Your task to perform on an android device: install app "Speedtest by Ookla" Image 0: 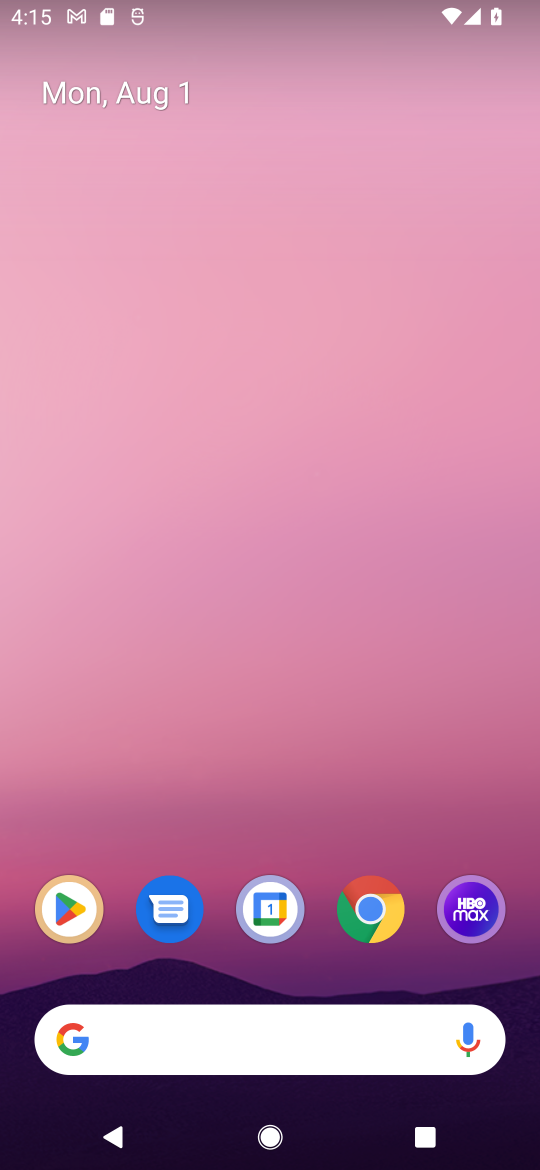
Step 0: click (64, 900)
Your task to perform on an android device: install app "Speedtest by Ookla" Image 1: 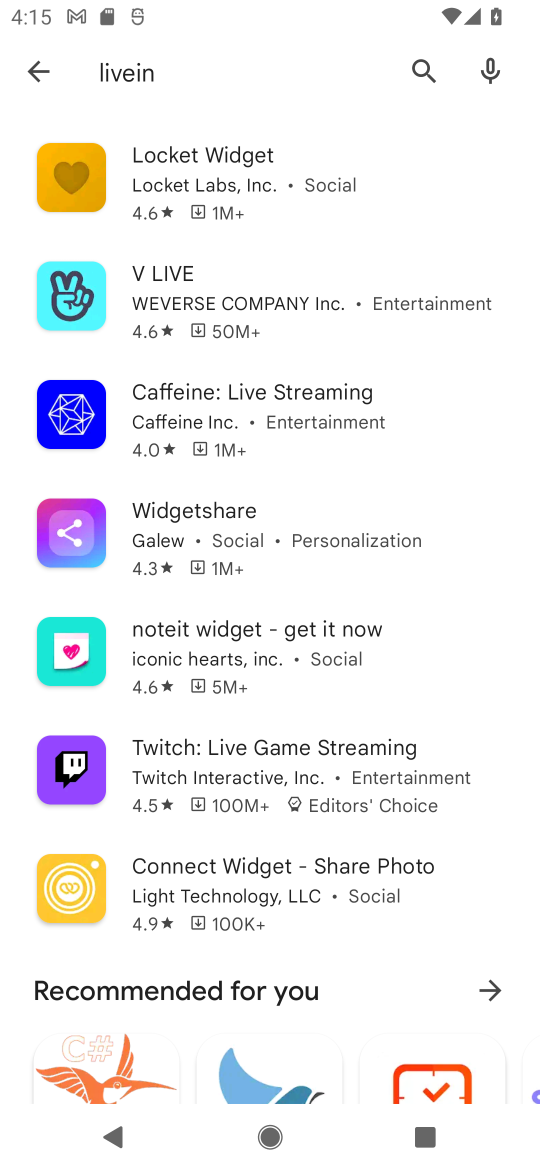
Step 1: click (192, 71)
Your task to perform on an android device: install app "Speedtest by Ookla" Image 2: 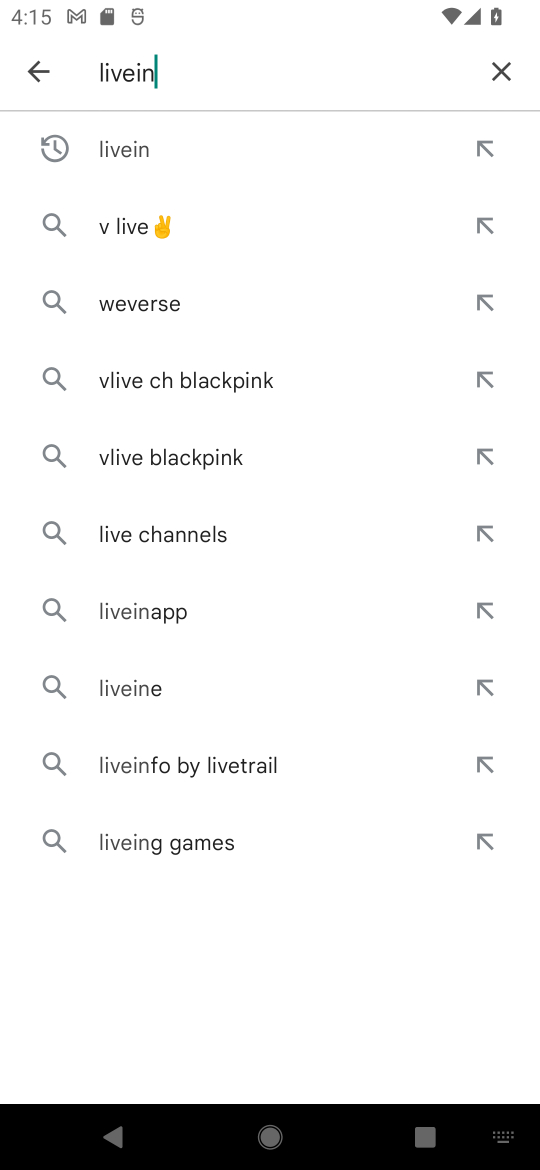
Step 2: click (504, 72)
Your task to perform on an android device: install app "Speedtest by Ookla" Image 3: 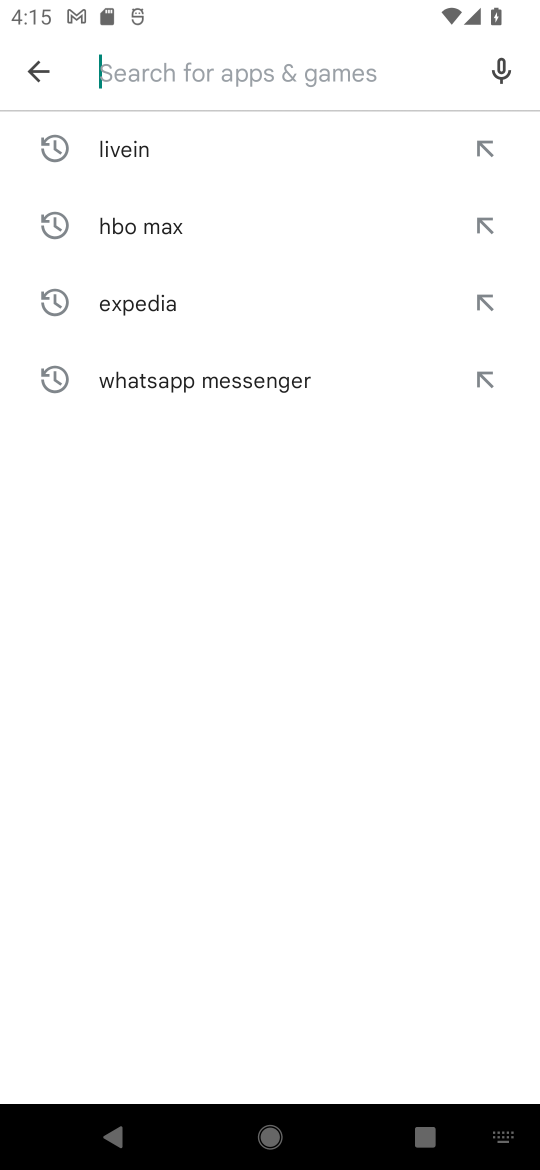
Step 3: type "speedtest by Ookla"
Your task to perform on an android device: install app "Speedtest by Ookla" Image 4: 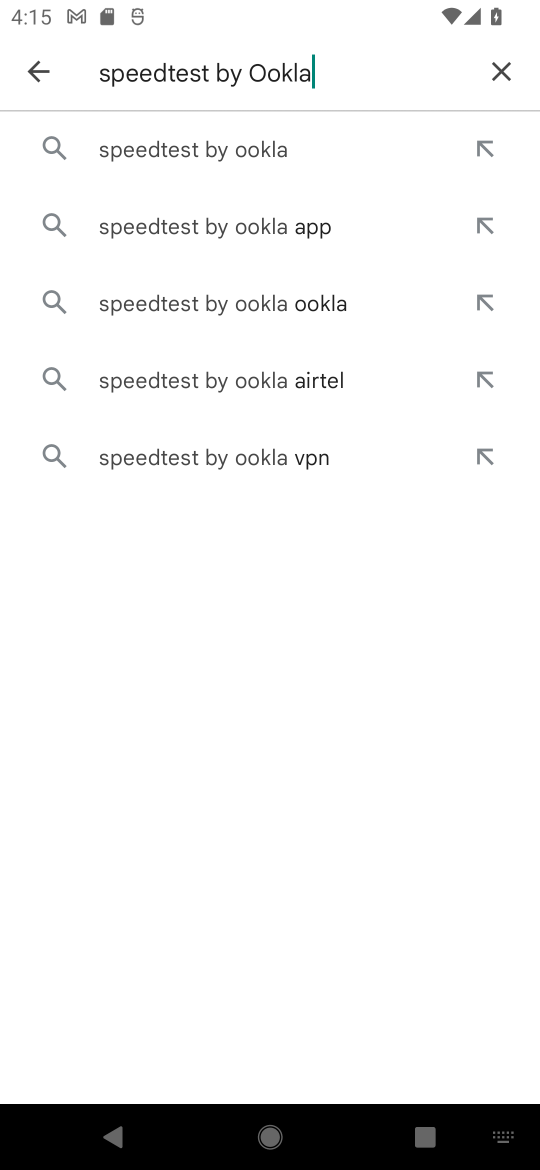
Step 4: click (271, 148)
Your task to perform on an android device: install app "Speedtest by Ookla" Image 5: 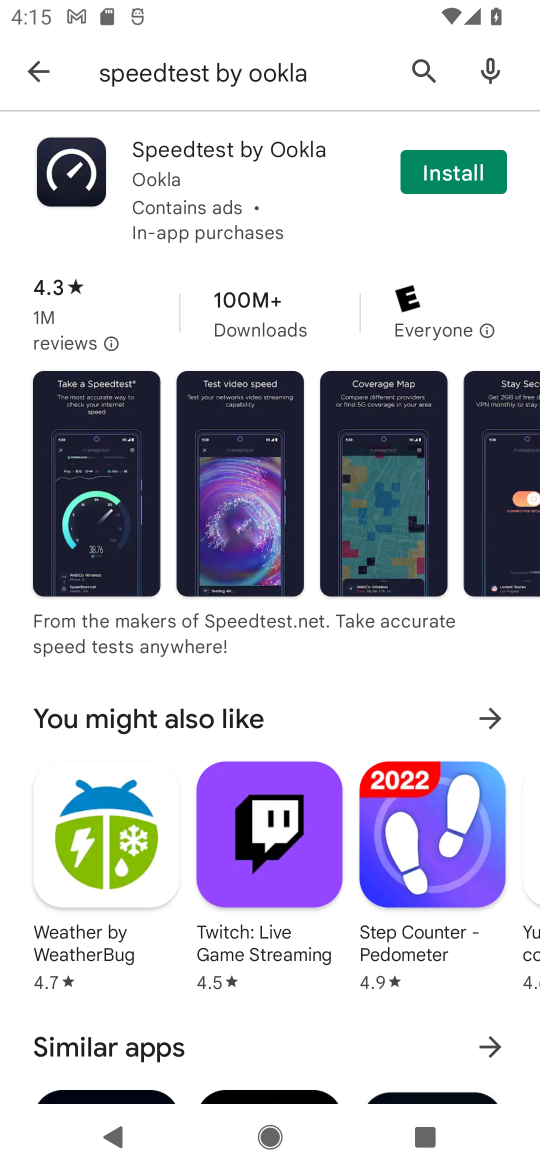
Step 5: click (474, 187)
Your task to perform on an android device: install app "Speedtest by Ookla" Image 6: 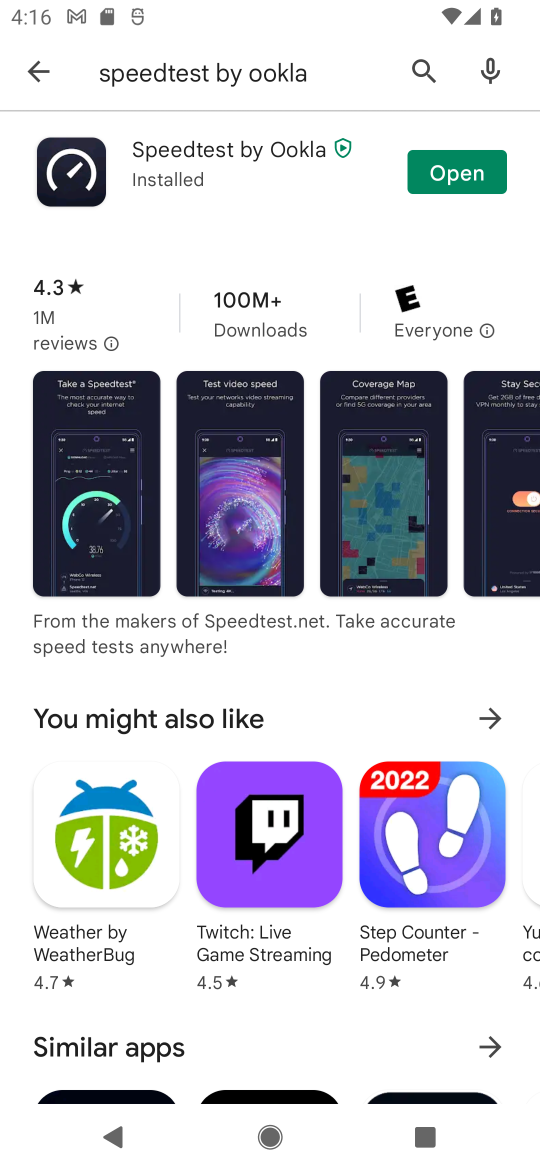
Step 6: task complete